Your task to perform on an android device: set the stopwatch Image 0: 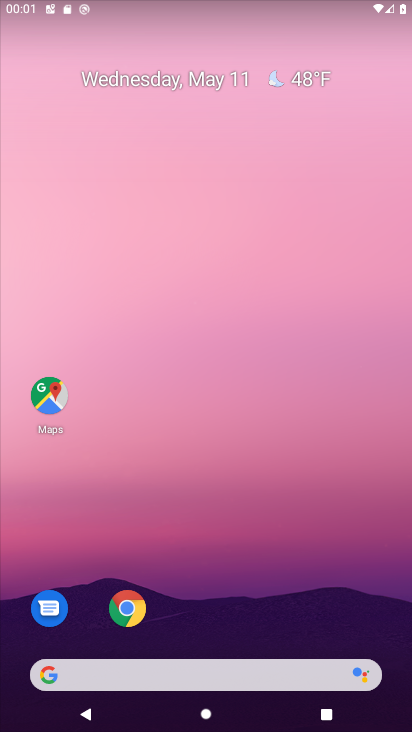
Step 0: drag from (228, 575) to (293, 7)
Your task to perform on an android device: set the stopwatch Image 1: 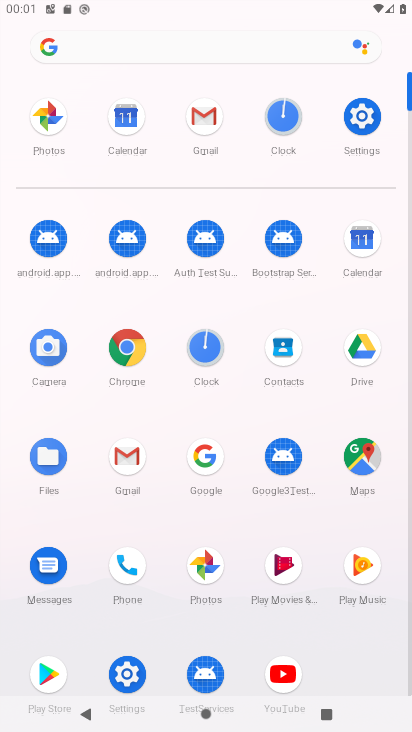
Step 1: click (274, 116)
Your task to perform on an android device: set the stopwatch Image 2: 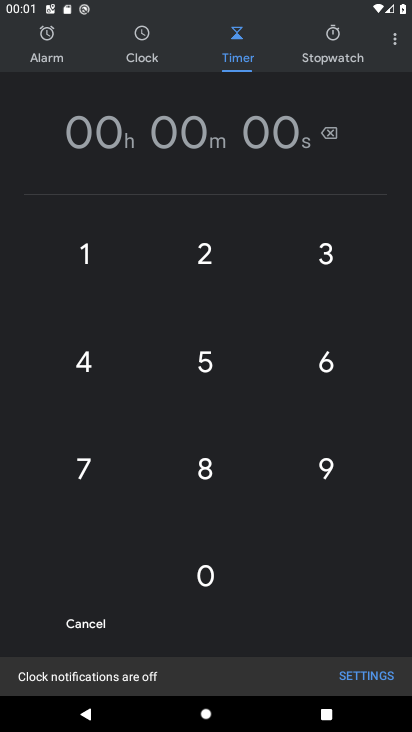
Step 2: click (290, 119)
Your task to perform on an android device: set the stopwatch Image 3: 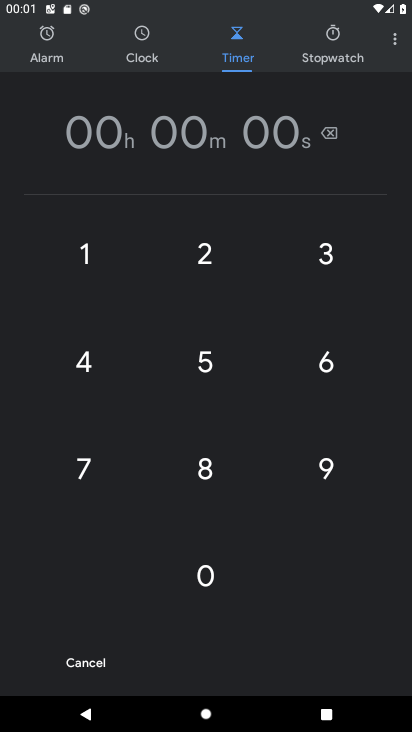
Step 3: click (327, 51)
Your task to perform on an android device: set the stopwatch Image 4: 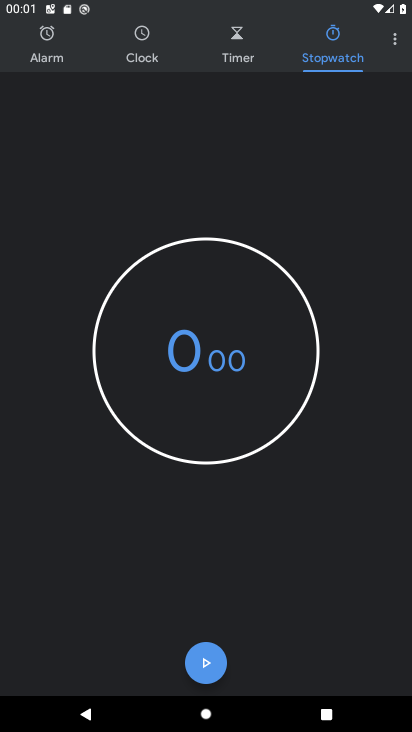
Step 4: click (226, 653)
Your task to perform on an android device: set the stopwatch Image 5: 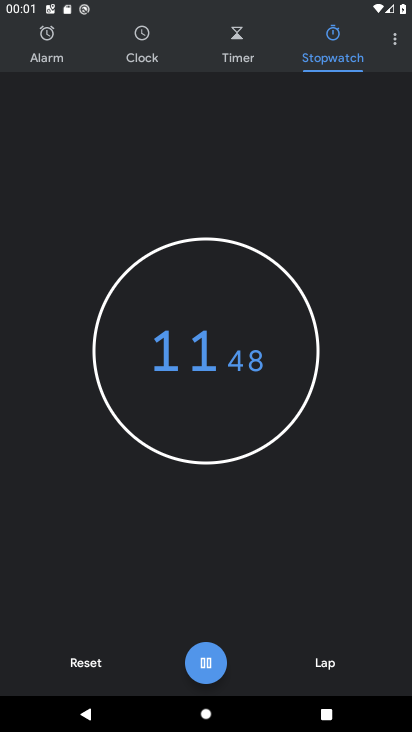
Step 5: click (210, 672)
Your task to perform on an android device: set the stopwatch Image 6: 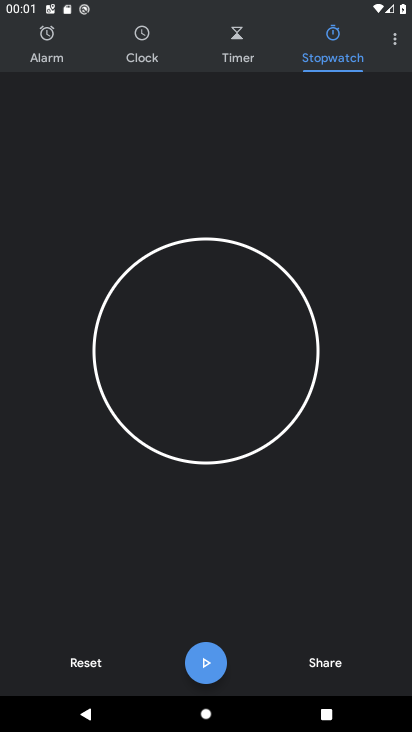
Step 6: task complete